Your task to perform on an android device: set default search engine in the chrome app Image 0: 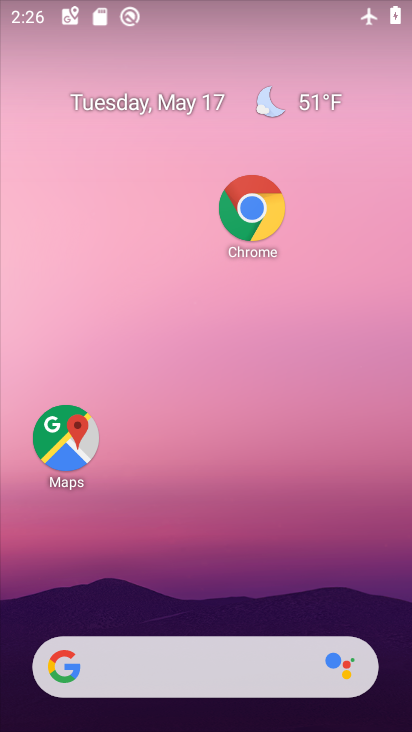
Step 0: drag from (186, 627) to (155, 37)
Your task to perform on an android device: set default search engine in the chrome app Image 1: 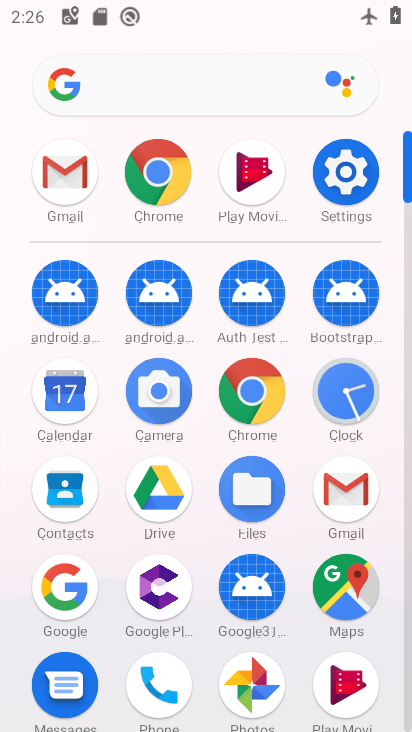
Step 1: click (257, 386)
Your task to perform on an android device: set default search engine in the chrome app Image 2: 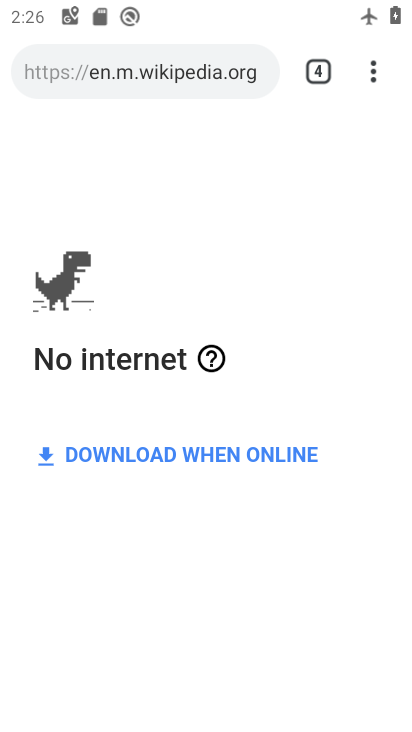
Step 2: click (369, 68)
Your task to perform on an android device: set default search engine in the chrome app Image 3: 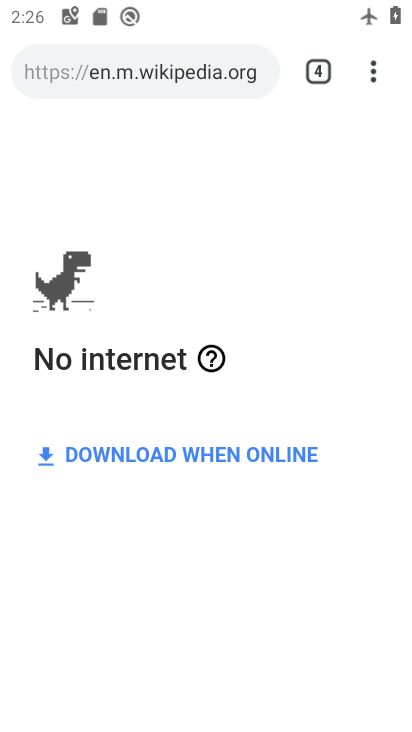
Step 3: click (381, 75)
Your task to perform on an android device: set default search engine in the chrome app Image 4: 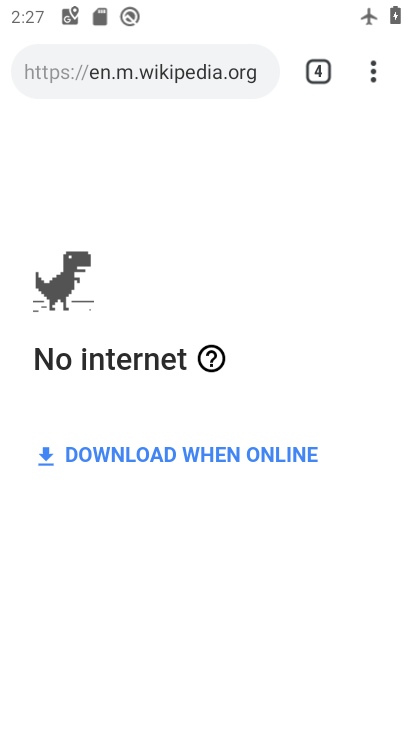
Step 4: drag from (375, 78) to (165, 575)
Your task to perform on an android device: set default search engine in the chrome app Image 5: 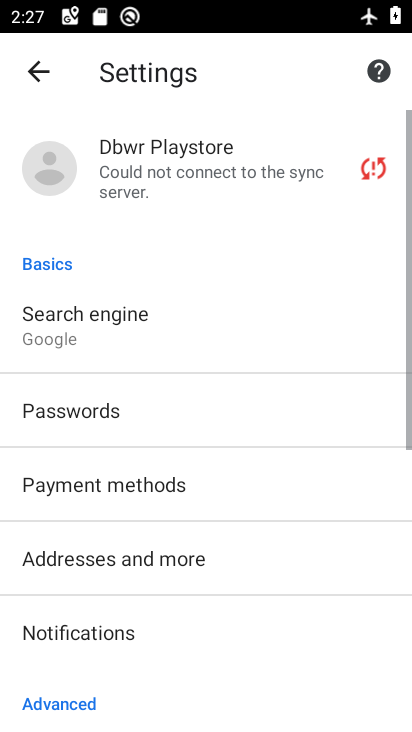
Step 5: click (51, 282)
Your task to perform on an android device: set default search engine in the chrome app Image 6: 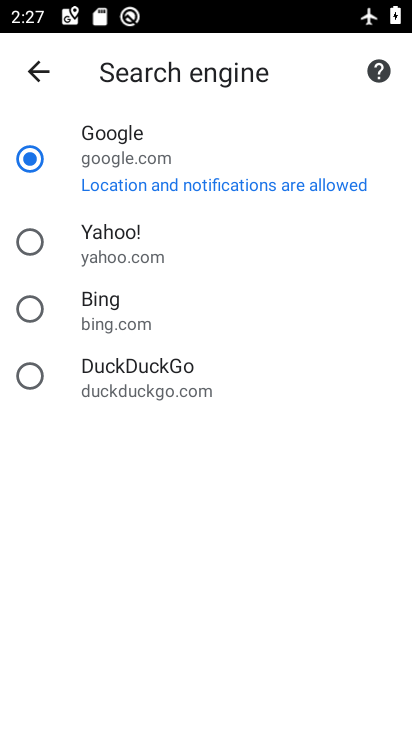
Step 6: click (16, 160)
Your task to perform on an android device: set default search engine in the chrome app Image 7: 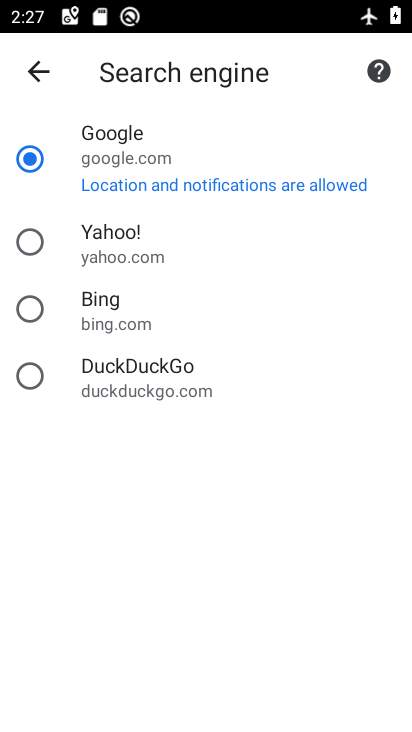
Step 7: task complete